Your task to perform on an android device: Open Google Maps and go to "Timeline" Image 0: 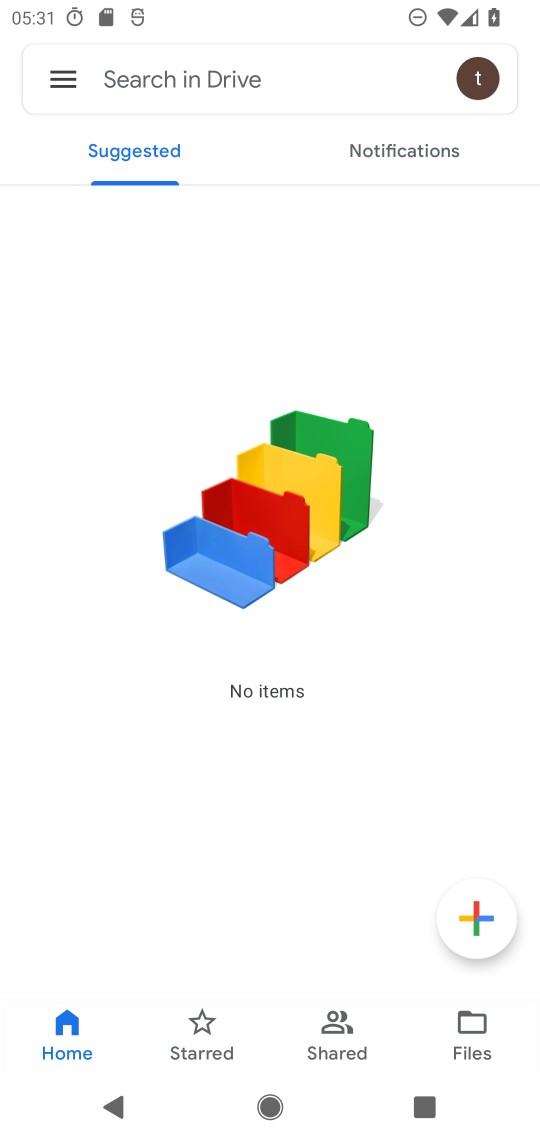
Step 0: press home button
Your task to perform on an android device: Open Google Maps and go to "Timeline" Image 1: 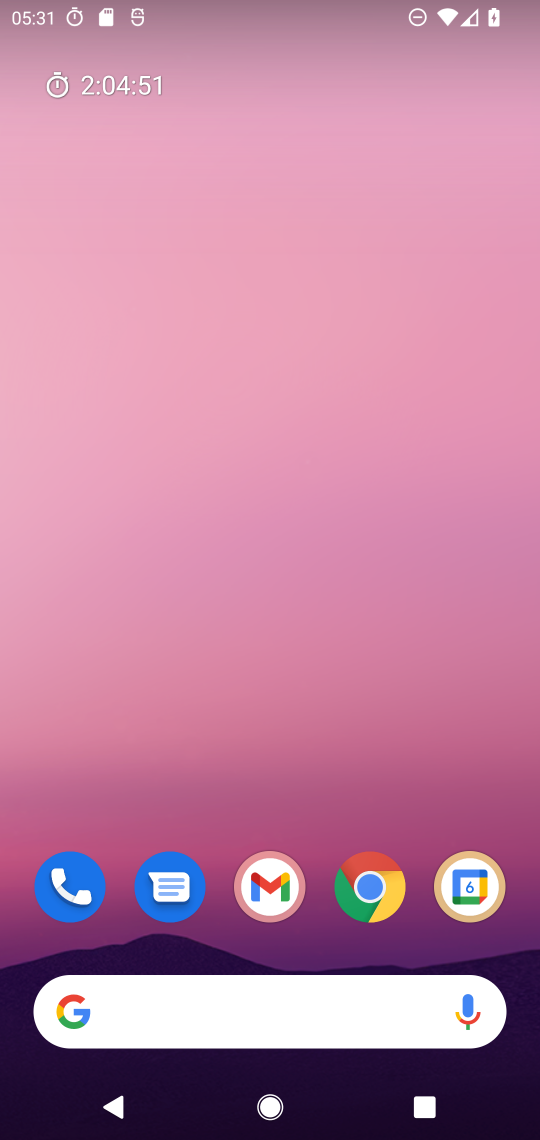
Step 1: drag from (394, 783) to (427, 217)
Your task to perform on an android device: Open Google Maps and go to "Timeline" Image 2: 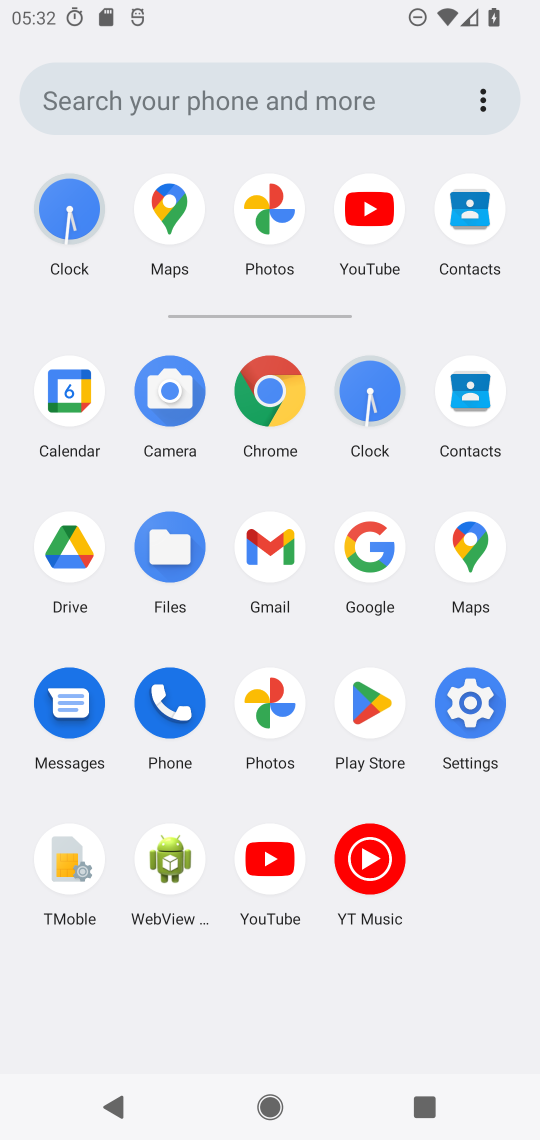
Step 2: click (476, 548)
Your task to perform on an android device: Open Google Maps and go to "Timeline" Image 3: 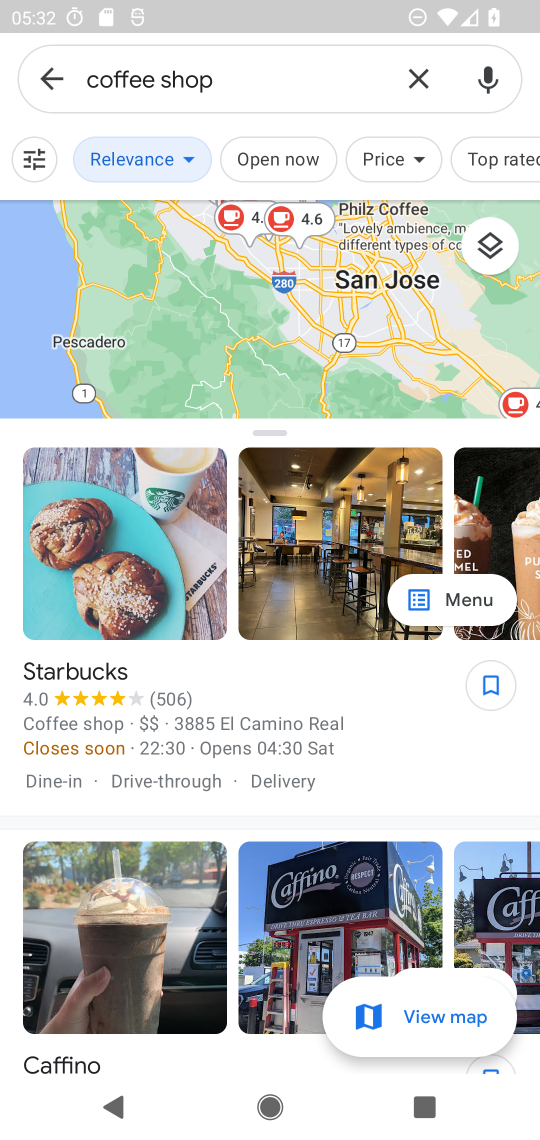
Step 3: press back button
Your task to perform on an android device: Open Google Maps and go to "Timeline" Image 4: 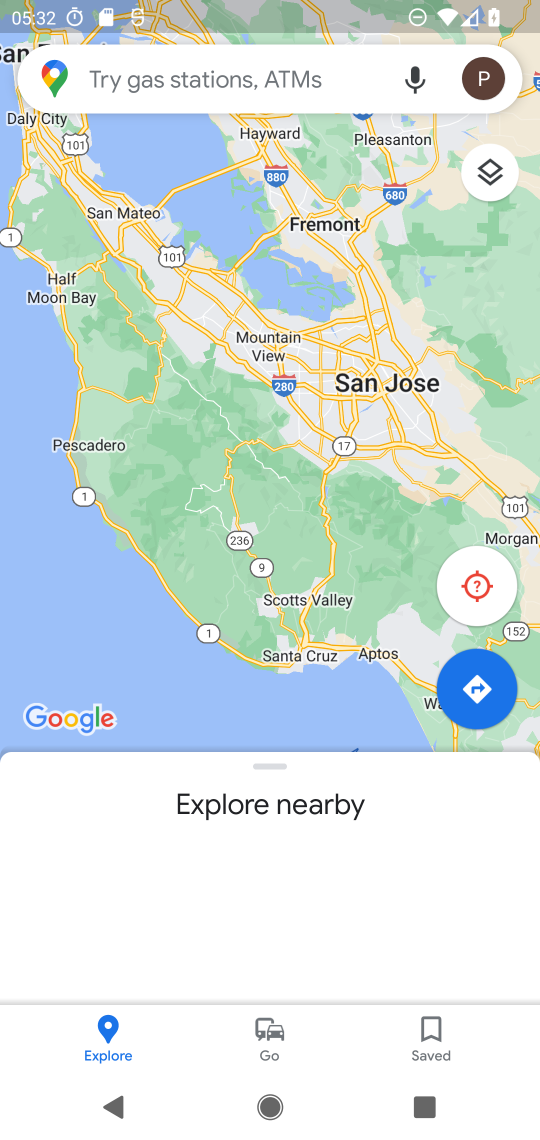
Step 4: click (483, 79)
Your task to perform on an android device: Open Google Maps and go to "Timeline" Image 5: 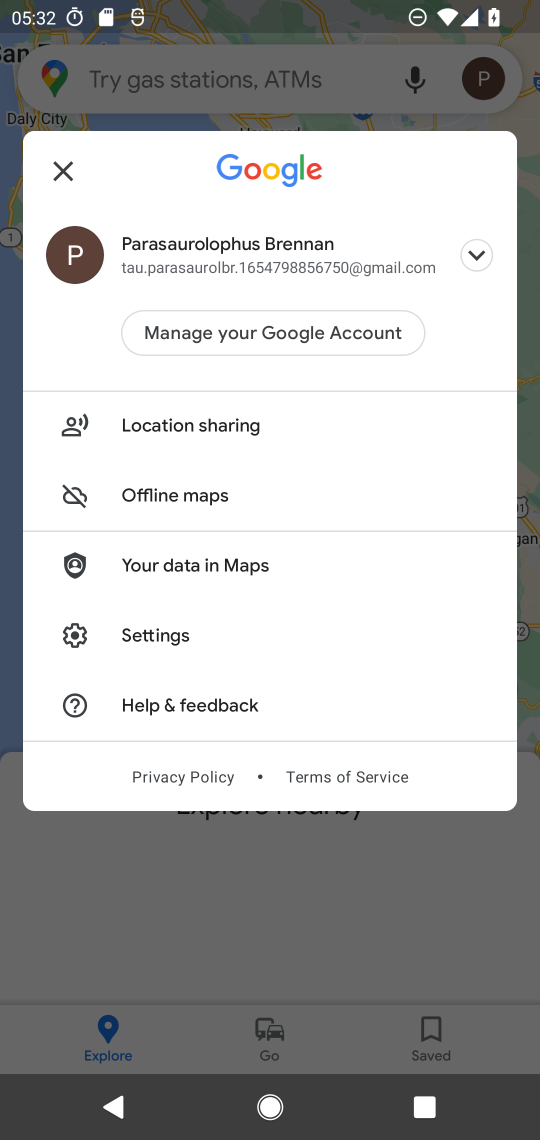
Step 5: task complete